Your task to perform on an android device: turn off improve location accuracy Image 0: 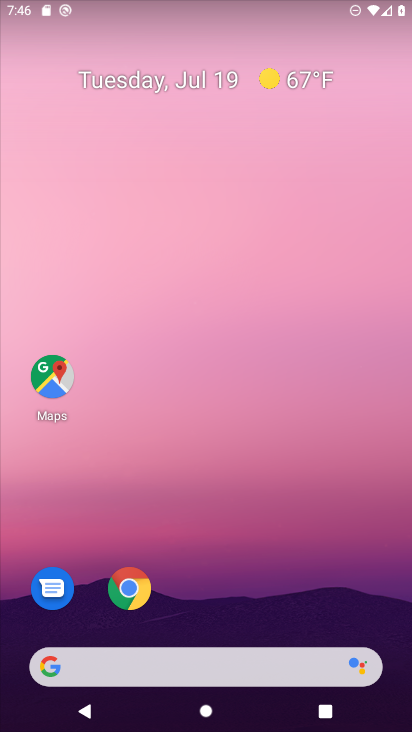
Step 0: drag from (352, 608) to (385, 95)
Your task to perform on an android device: turn off improve location accuracy Image 1: 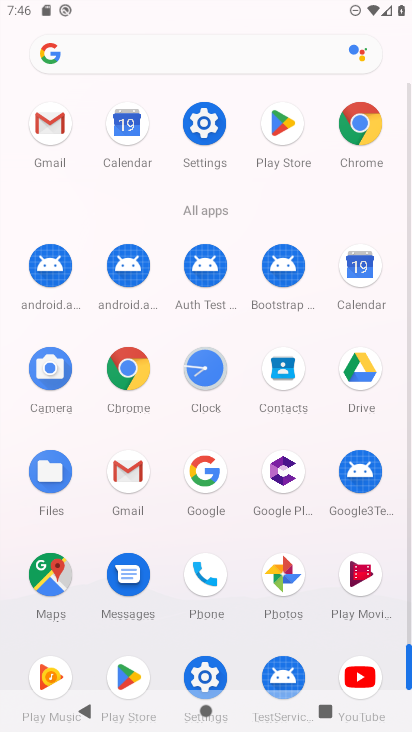
Step 1: click (201, 133)
Your task to perform on an android device: turn off improve location accuracy Image 2: 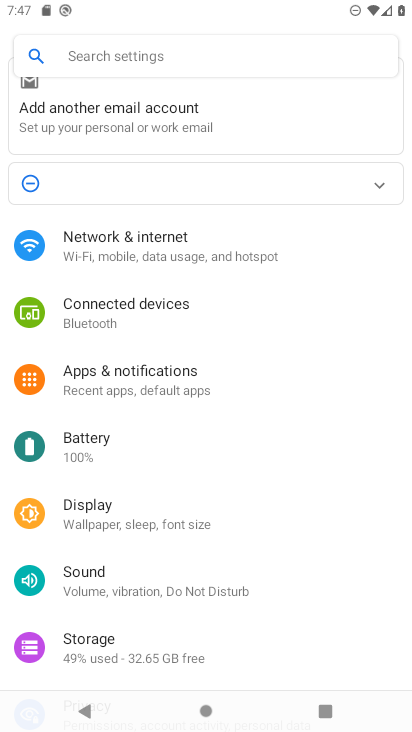
Step 2: drag from (325, 505) to (332, 410)
Your task to perform on an android device: turn off improve location accuracy Image 3: 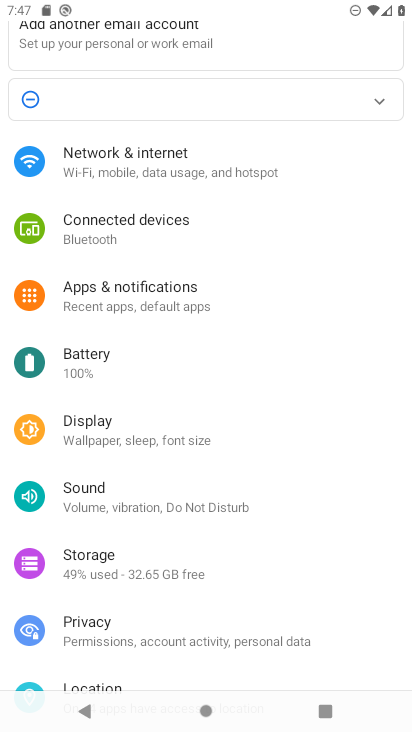
Step 3: drag from (319, 562) to (338, 466)
Your task to perform on an android device: turn off improve location accuracy Image 4: 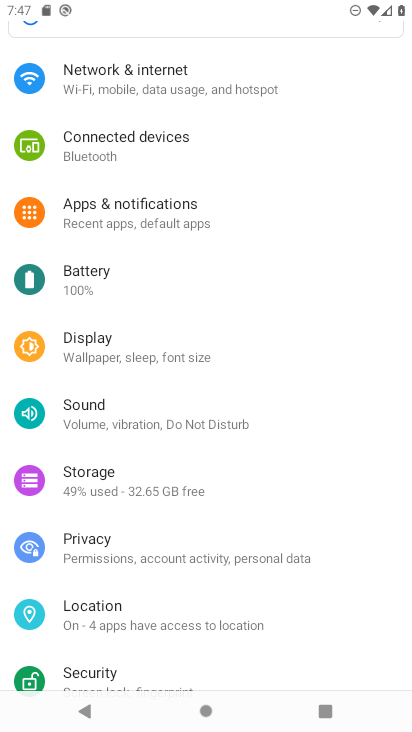
Step 4: drag from (345, 587) to (350, 501)
Your task to perform on an android device: turn off improve location accuracy Image 5: 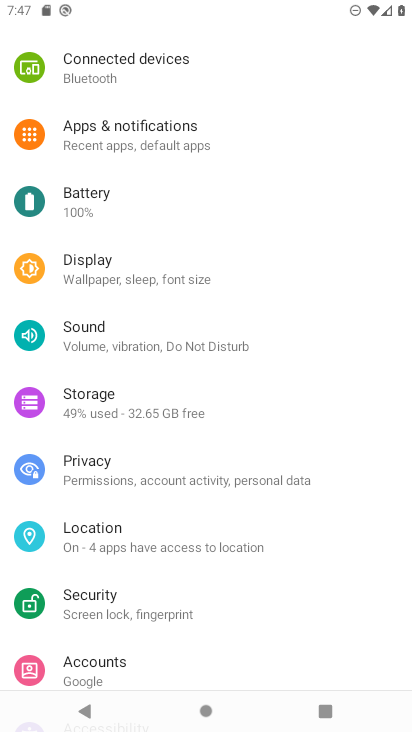
Step 5: drag from (350, 592) to (354, 504)
Your task to perform on an android device: turn off improve location accuracy Image 6: 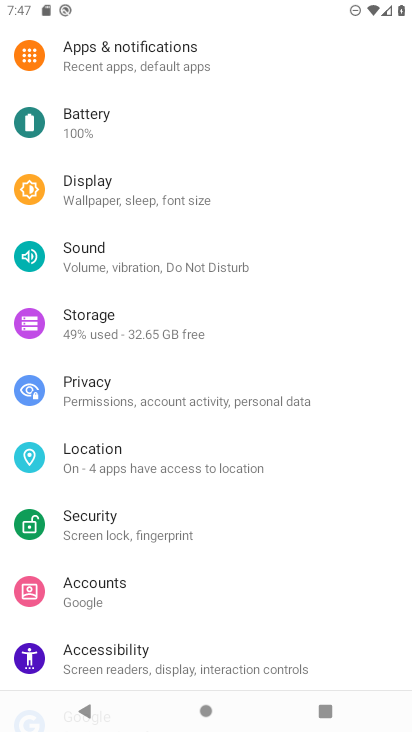
Step 6: drag from (341, 603) to (341, 435)
Your task to perform on an android device: turn off improve location accuracy Image 7: 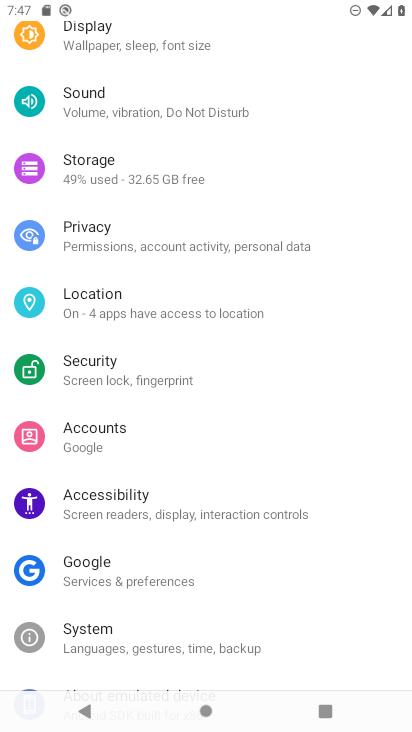
Step 7: drag from (341, 575) to (342, 432)
Your task to perform on an android device: turn off improve location accuracy Image 8: 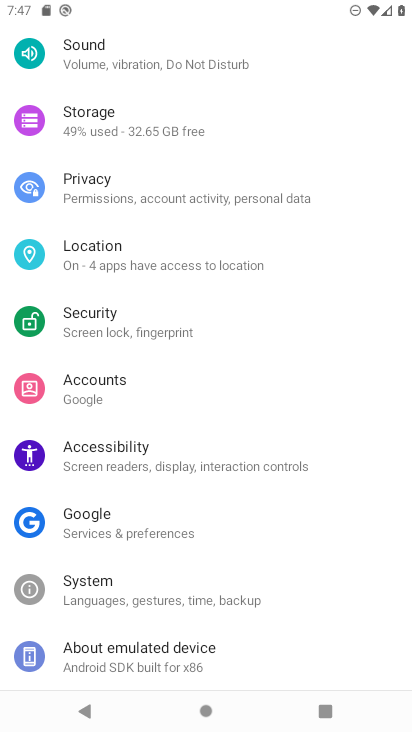
Step 8: click (249, 263)
Your task to perform on an android device: turn off improve location accuracy Image 9: 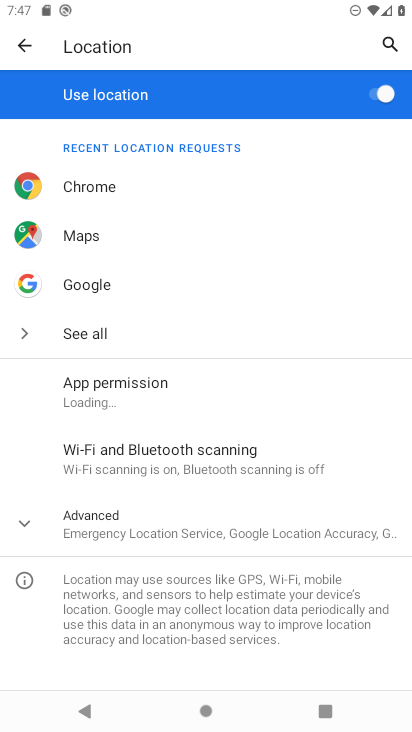
Step 9: click (258, 520)
Your task to perform on an android device: turn off improve location accuracy Image 10: 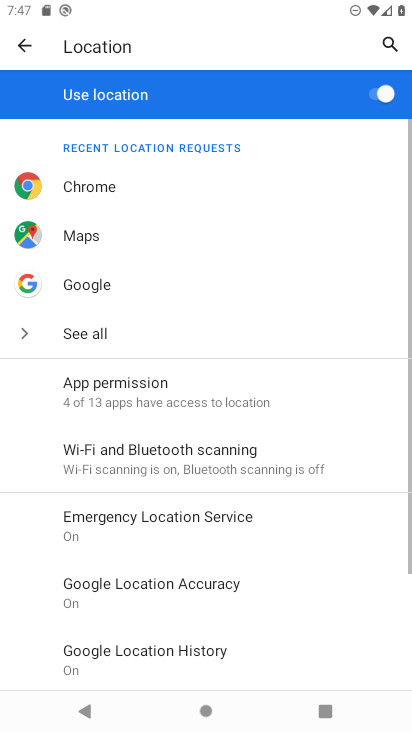
Step 10: drag from (296, 574) to (311, 494)
Your task to perform on an android device: turn off improve location accuracy Image 11: 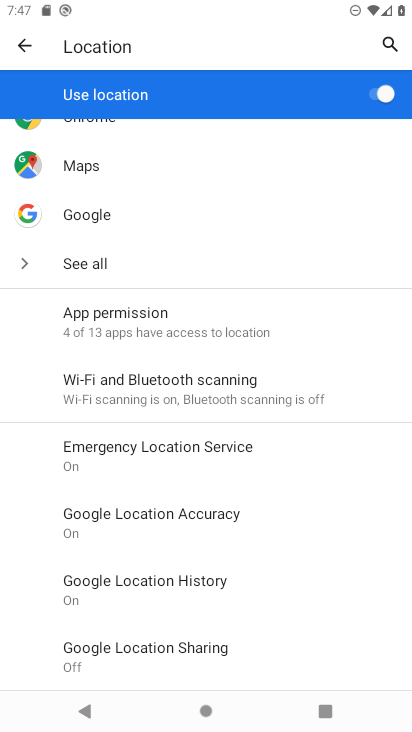
Step 11: drag from (313, 566) to (322, 481)
Your task to perform on an android device: turn off improve location accuracy Image 12: 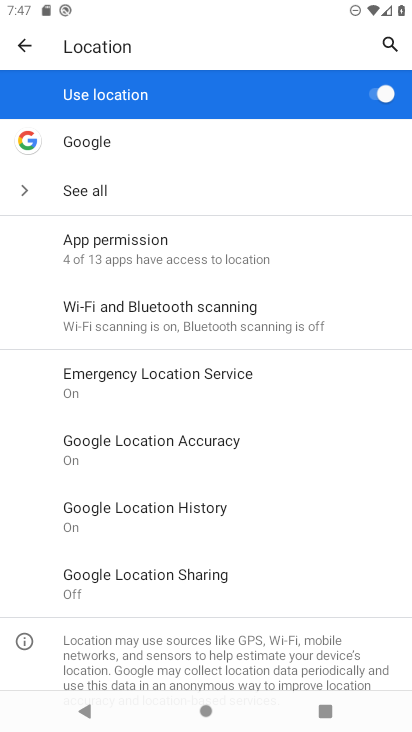
Step 12: click (243, 448)
Your task to perform on an android device: turn off improve location accuracy Image 13: 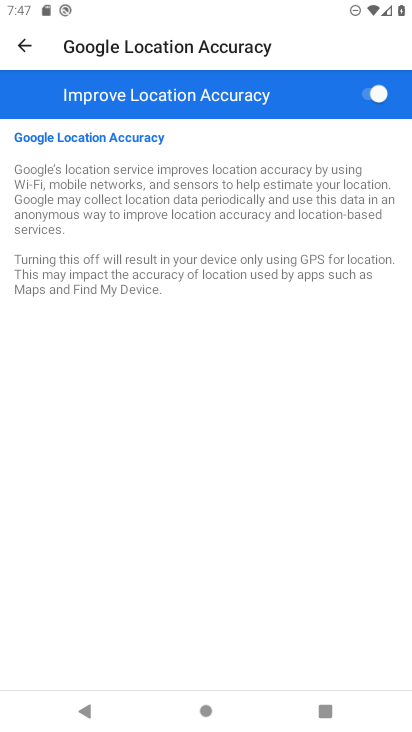
Step 13: click (367, 96)
Your task to perform on an android device: turn off improve location accuracy Image 14: 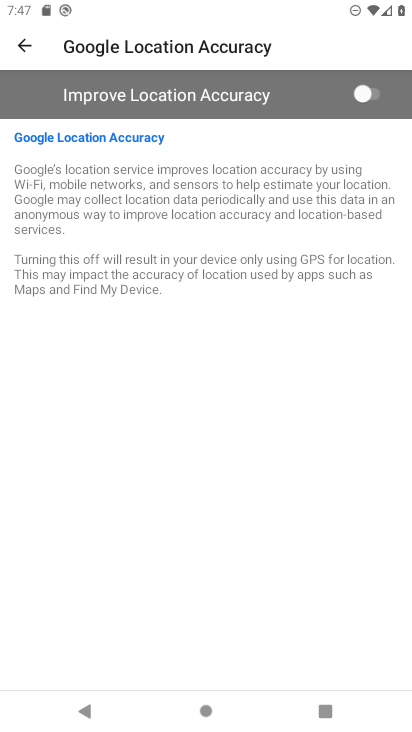
Step 14: task complete